Your task to perform on an android device: Go to Android settings Image 0: 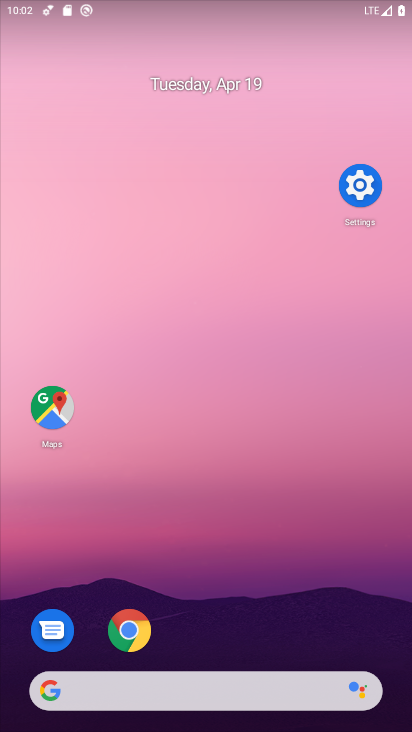
Step 0: drag from (238, 629) to (302, 167)
Your task to perform on an android device: Go to Android settings Image 1: 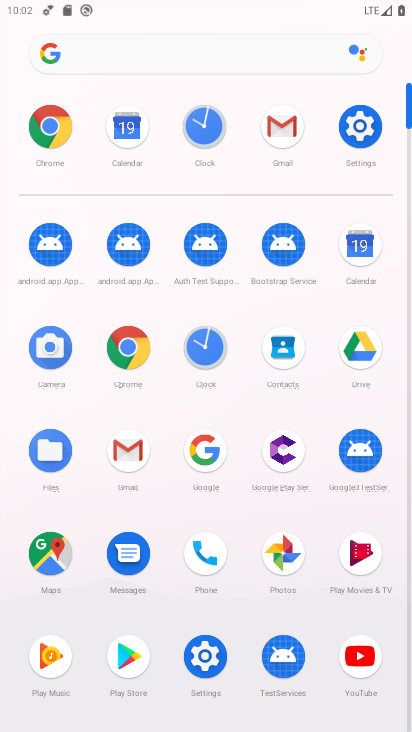
Step 1: click (367, 136)
Your task to perform on an android device: Go to Android settings Image 2: 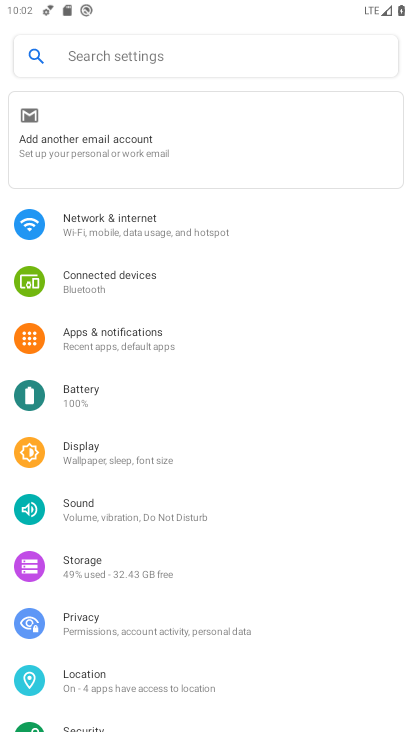
Step 2: drag from (174, 565) to (271, 184)
Your task to perform on an android device: Go to Android settings Image 3: 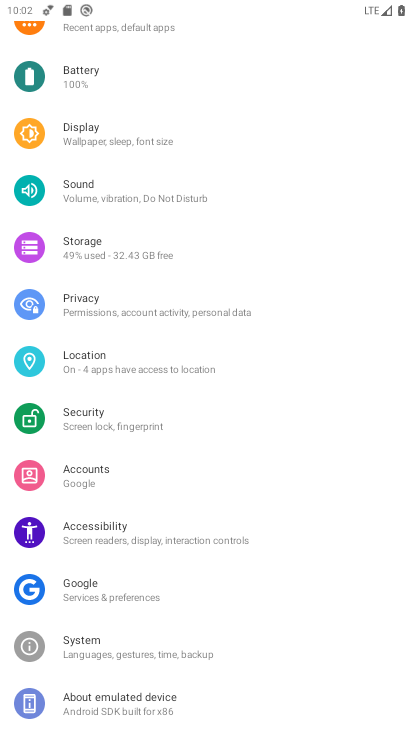
Step 3: drag from (157, 585) to (240, 191)
Your task to perform on an android device: Go to Android settings Image 4: 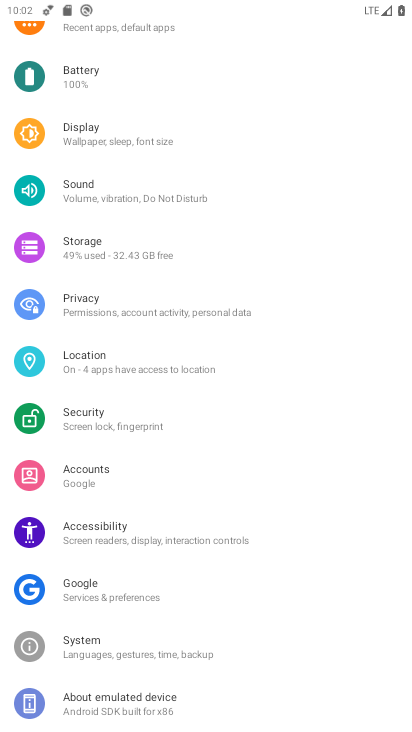
Step 4: click (103, 709)
Your task to perform on an android device: Go to Android settings Image 5: 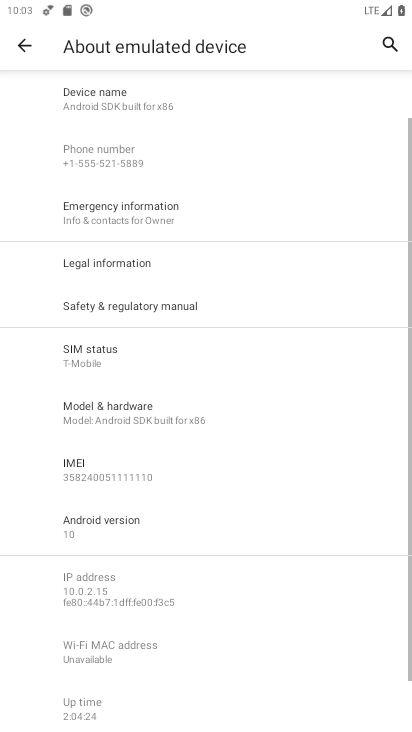
Step 5: task complete